Your task to perform on an android device: Open calendar and show me the first week of next month Image 0: 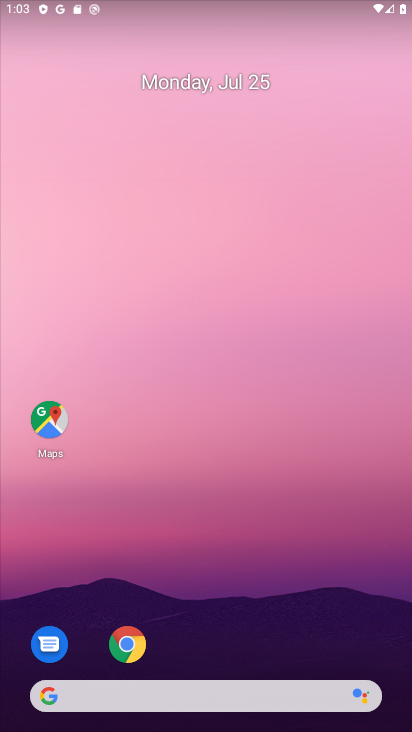
Step 0: drag from (238, 629) to (179, 15)
Your task to perform on an android device: Open calendar and show me the first week of next month Image 1: 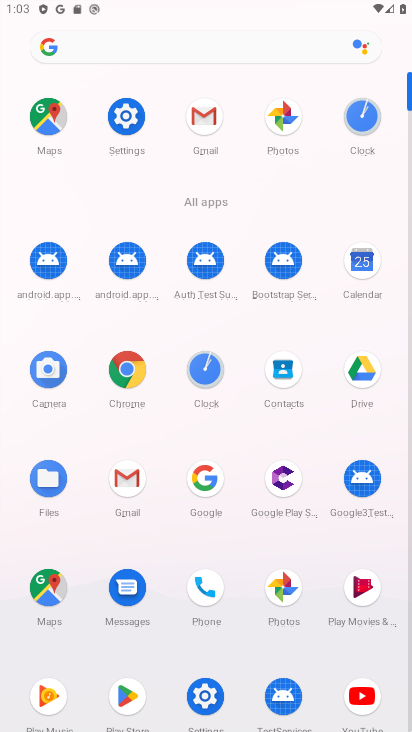
Step 1: click (360, 259)
Your task to perform on an android device: Open calendar and show me the first week of next month Image 2: 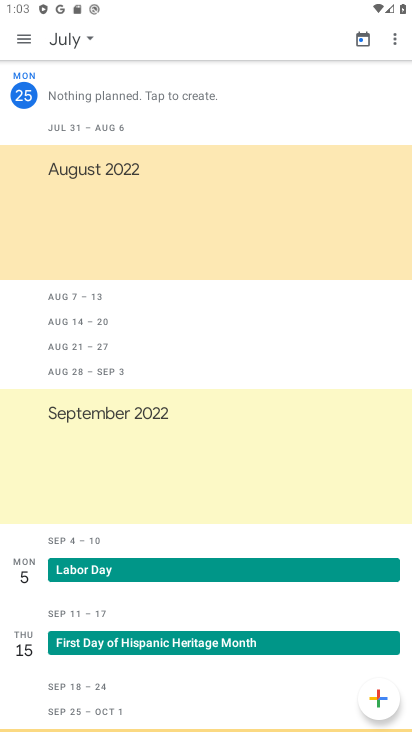
Step 2: click (79, 38)
Your task to perform on an android device: Open calendar and show me the first week of next month Image 3: 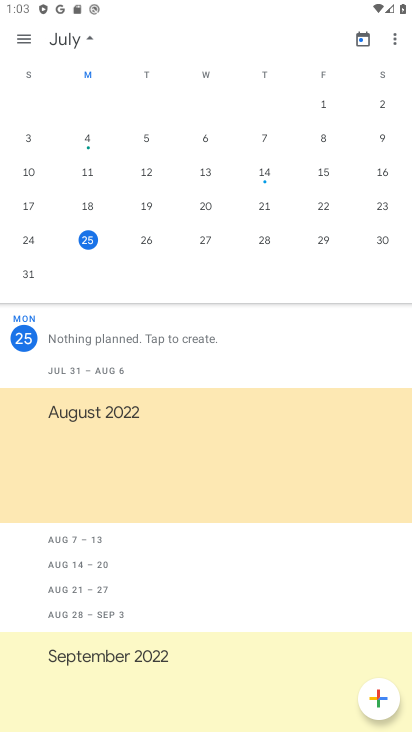
Step 3: task complete